Your task to perform on an android device: change alarm snooze length Image 0: 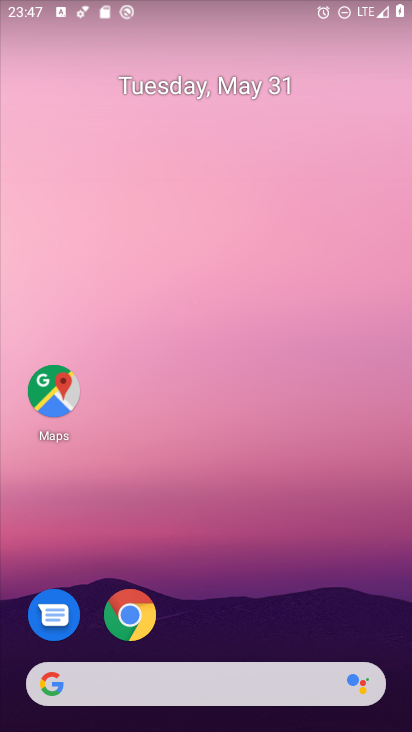
Step 0: drag from (392, 655) to (325, 103)
Your task to perform on an android device: change alarm snooze length Image 1: 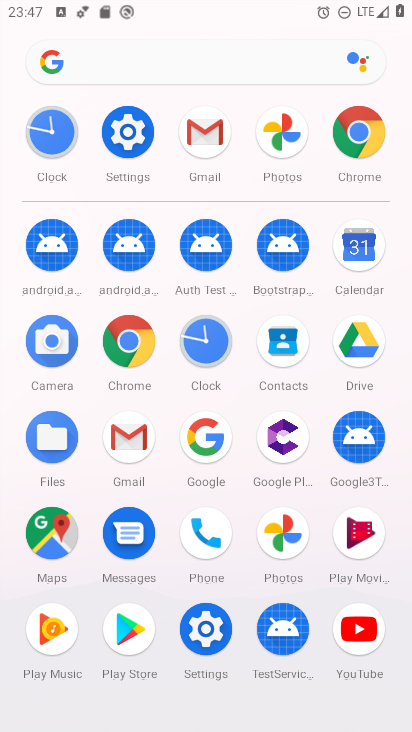
Step 1: click (205, 343)
Your task to perform on an android device: change alarm snooze length Image 2: 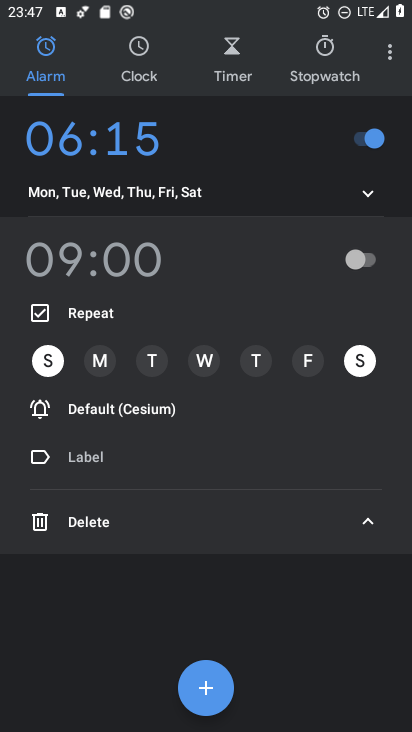
Step 2: click (389, 52)
Your task to perform on an android device: change alarm snooze length Image 3: 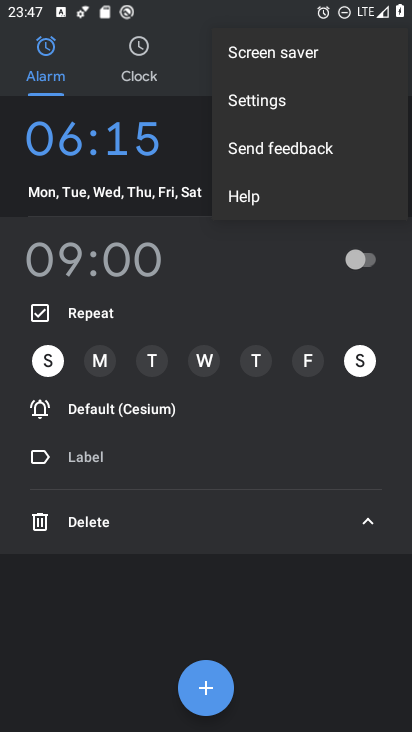
Step 3: click (254, 92)
Your task to perform on an android device: change alarm snooze length Image 4: 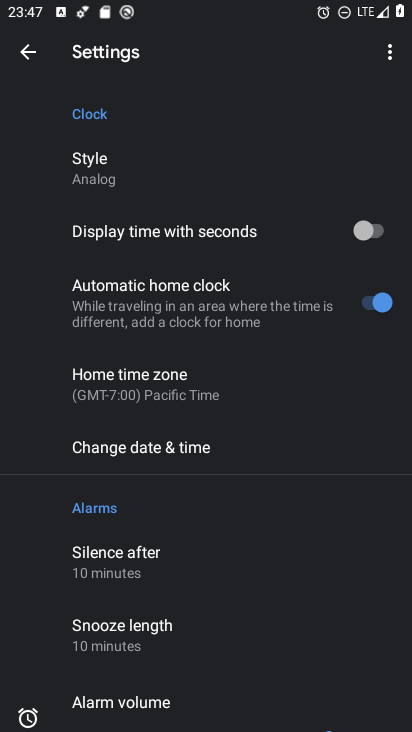
Step 4: click (151, 626)
Your task to perform on an android device: change alarm snooze length Image 5: 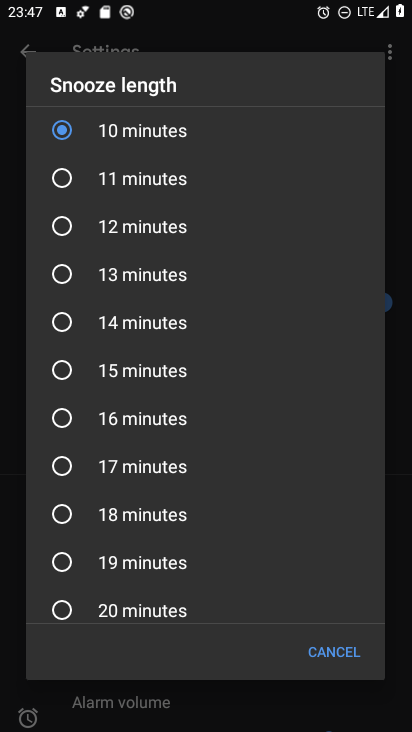
Step 5: click (64, 367)
Your task to perform on an android device: change alarm snooze length Image 6: 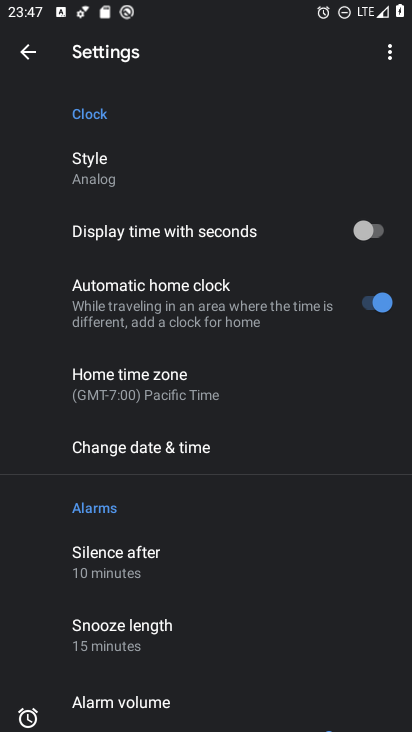
Step 6: task complete